Your task to perform on an android device: See recent photos Image 0: 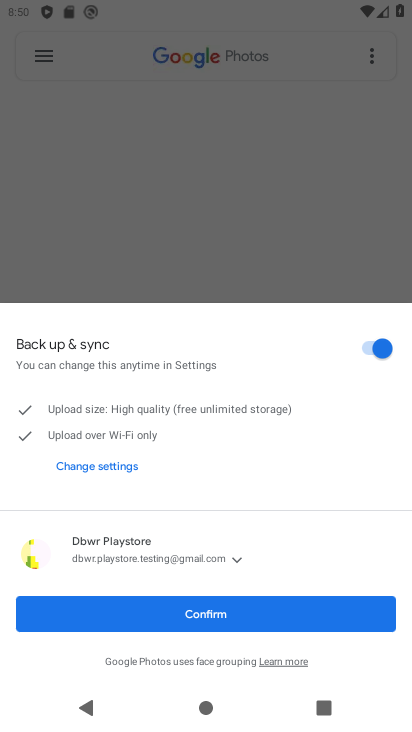
Step 0: press home button
Your task to perform on an android device: See recent photos Image 1: 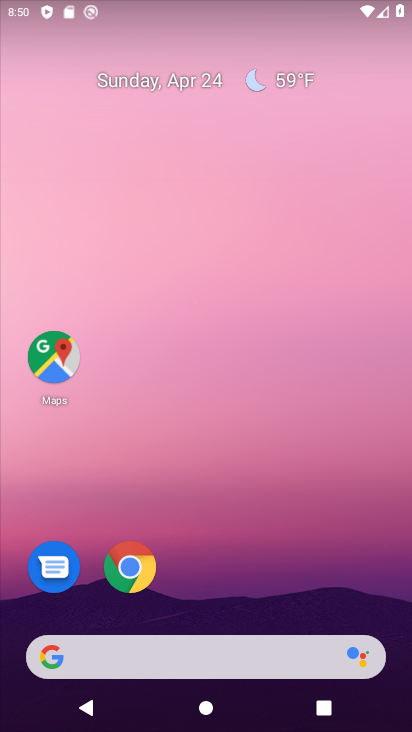
Step 1: drag from (373, 429) to (340, 218)
Your task to perform on an android device: See recent photos Image 2: 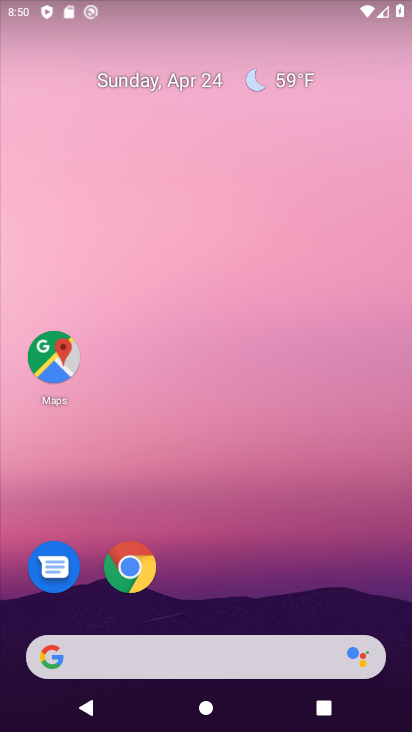
Step 2: drag from (355, 320) to (334, 90)
Your task to perform on an android device: See recent photos Image 3: 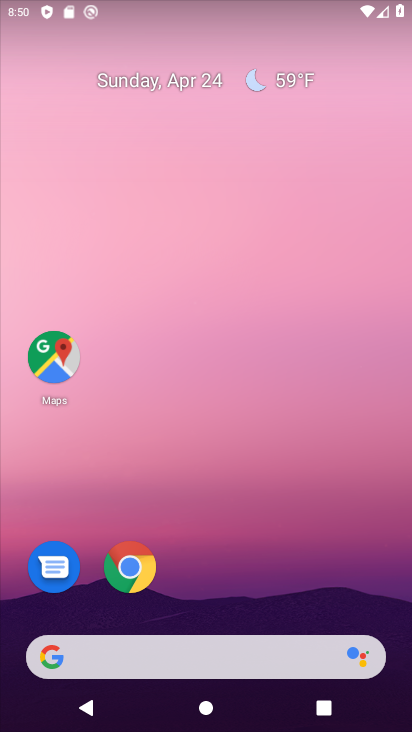
Step 3: drag from (356, 225) to (345, 120)
Your task to perform on an android device: See recent photos Image 4: 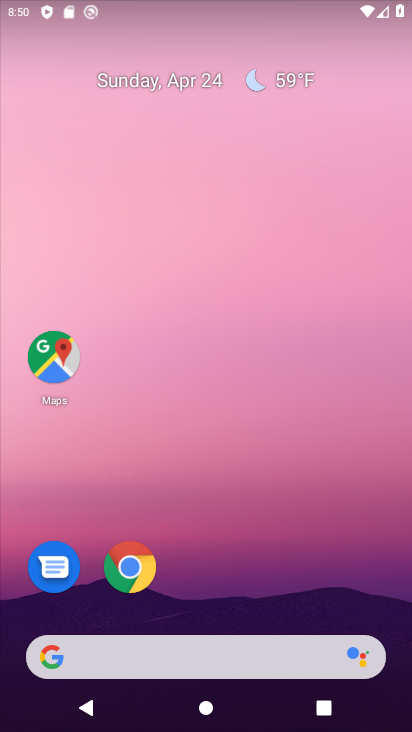
Step 4: drag from (391, 601) to (369, 140)
Your task to perform on an android device: See recent photos Image 5: 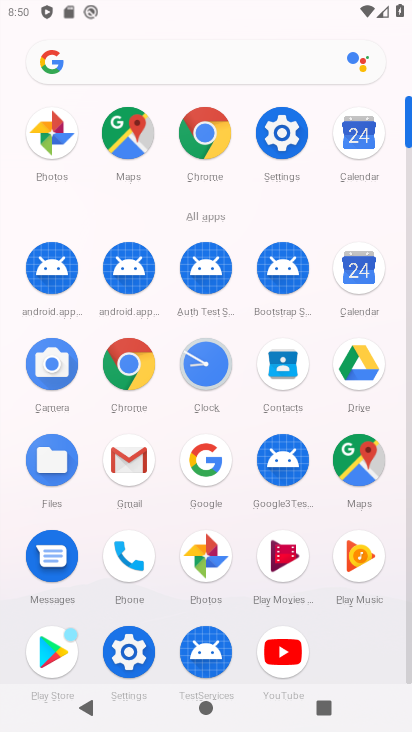
Step 5: click (54, 133)
Your task to perform on an android device: See recent photos Image 6: 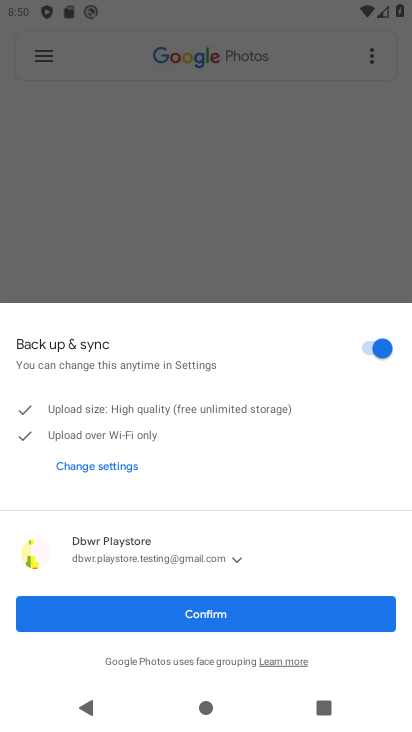
Step 6: click (208, 616)
Your task to perform on an android device: See recent photos Image 7: 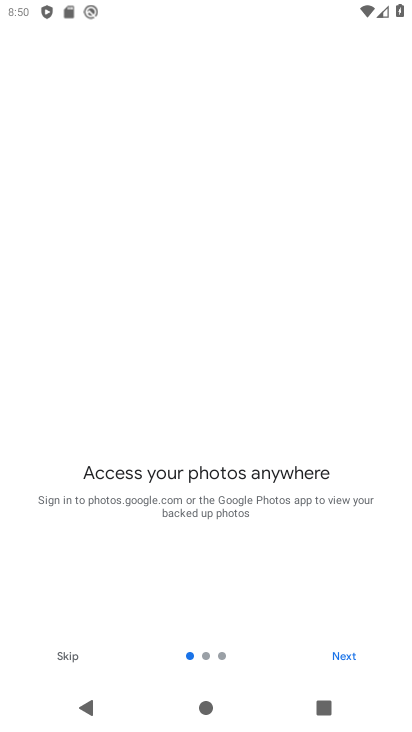
Step 7: click (340, 658)
Your task to perform on an android device: See recent photos Image 8: 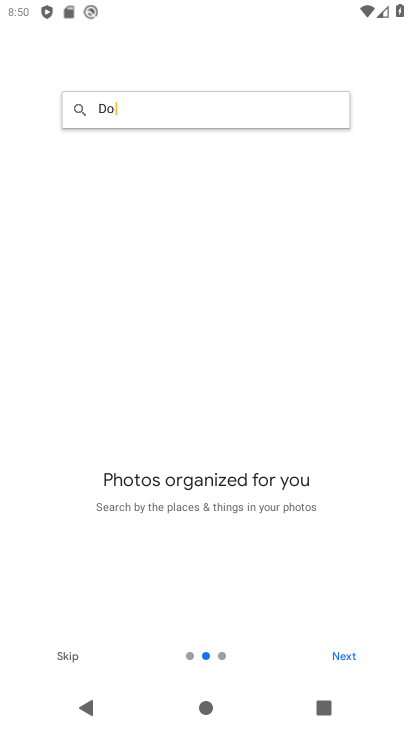
Step 8: click (340, 654)
Your task to perform on an android device: See recent photos Image 9: 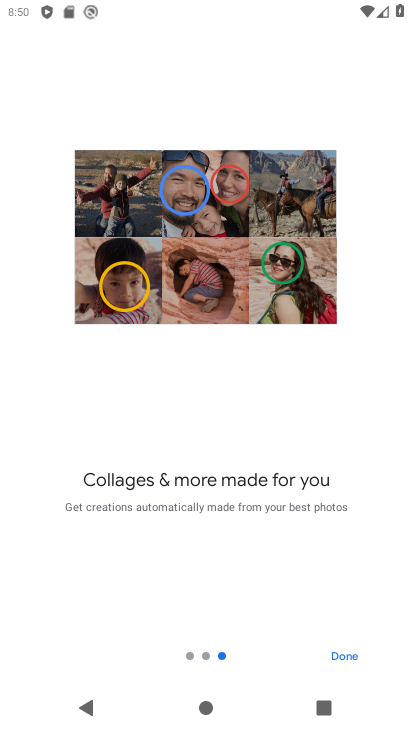
Step 9: click (340, 654)
Your task to perform on an android device: See recent photos Image 10: 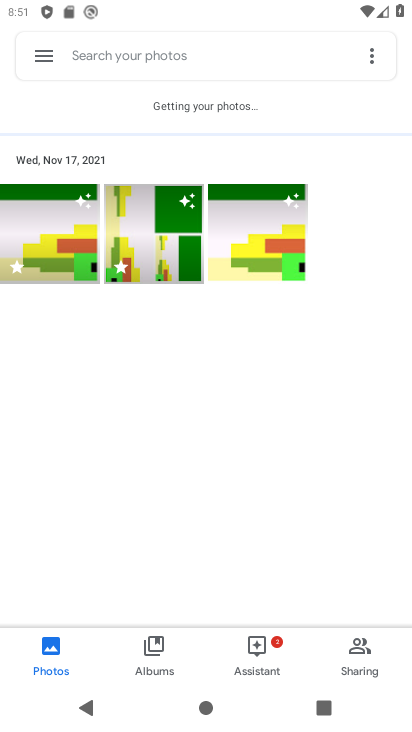
Step 10: click (44, 260)
Your task to perform on an android device: See recent photos Image 11: 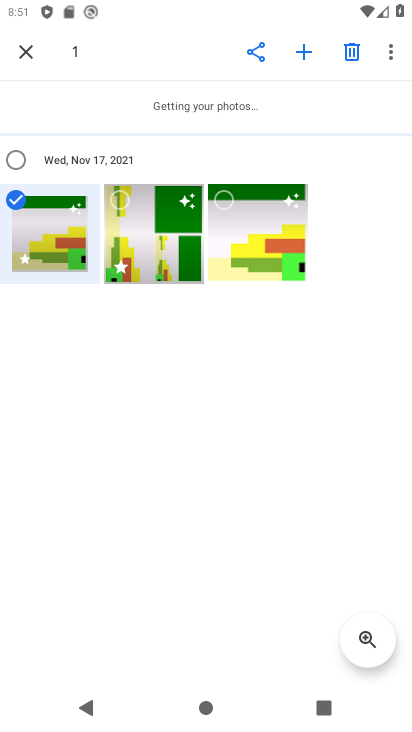
Step 11: press back button
Your task to perform on an android device: See recent photos Image 12: 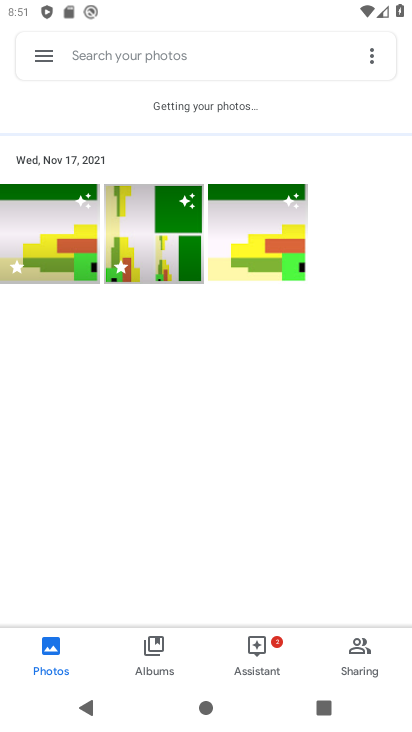
Step 12: click (40, 225)
Your task to perform on an android device: See recent photos Image 13: 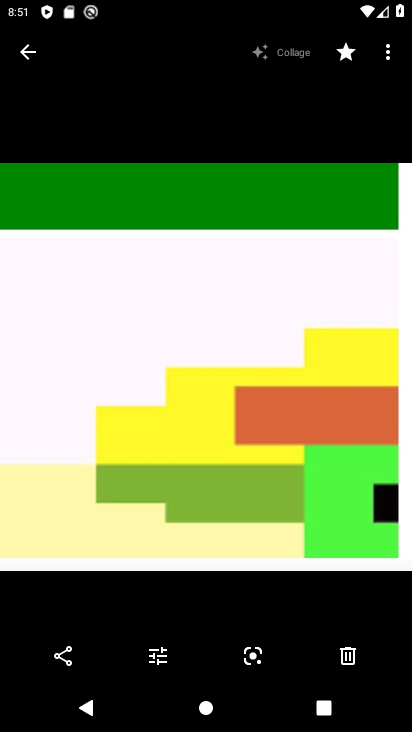
Step 13: click (25, 53)
Your task to perform on an android device: See recent photos Image 14: 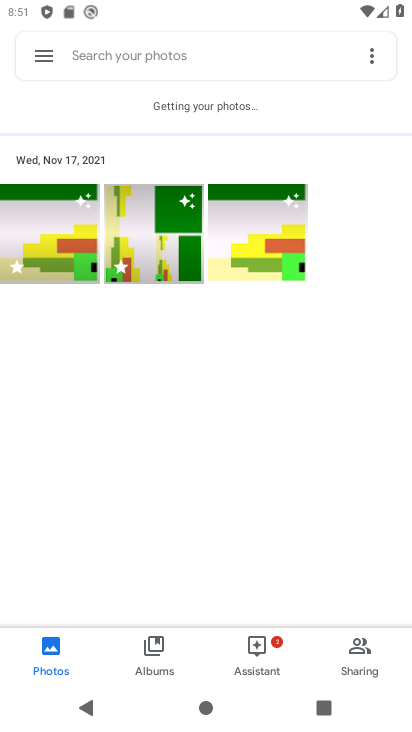
Step 14: click (134, 224)
Your task to perform on an android device: See recent photos Image 15: 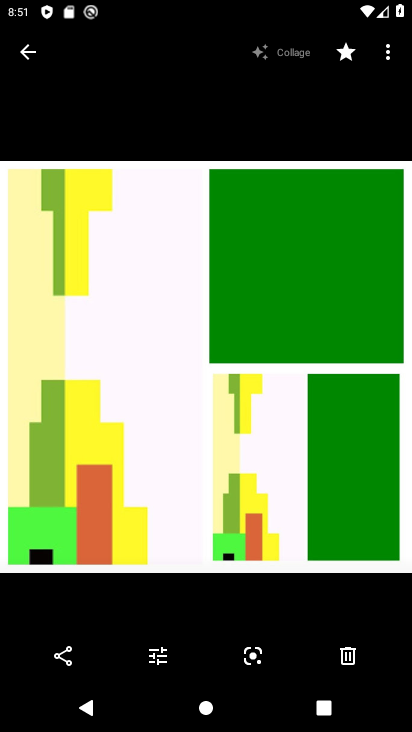
Step 15: click (13, 51)
Your task to perform on an android device: See recent photos Image 16: 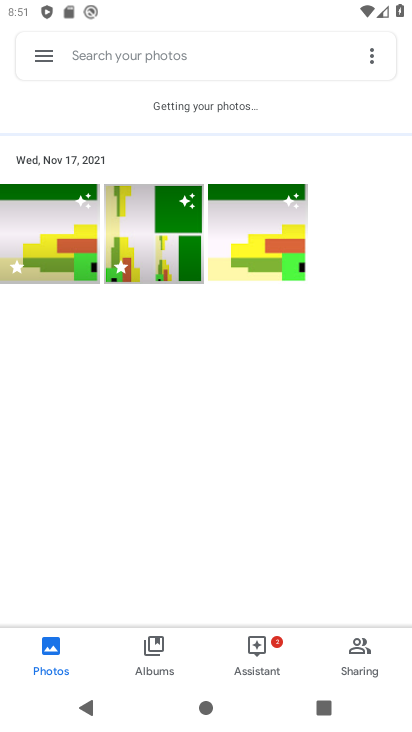
Step 16: click (185, 208)
Your task to perform on an android device: See recent photos Image 17: 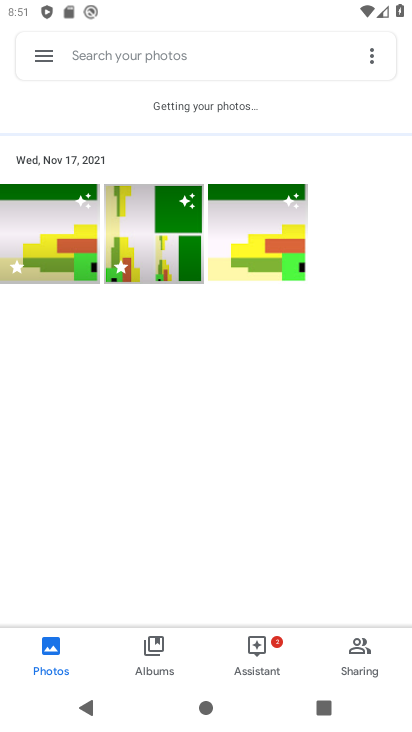
Step 17: click (229, 228)
Your task to perform on an android device: See recent photos Image 18: 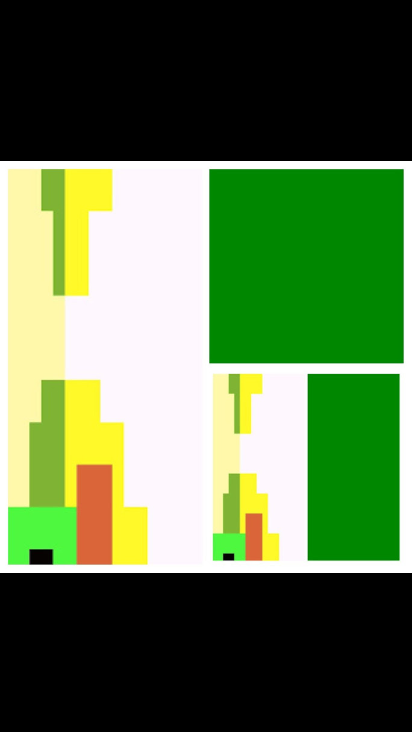
Step 18: click (29, 63)
Your task to perform on an android device: See recent photos Image 19: 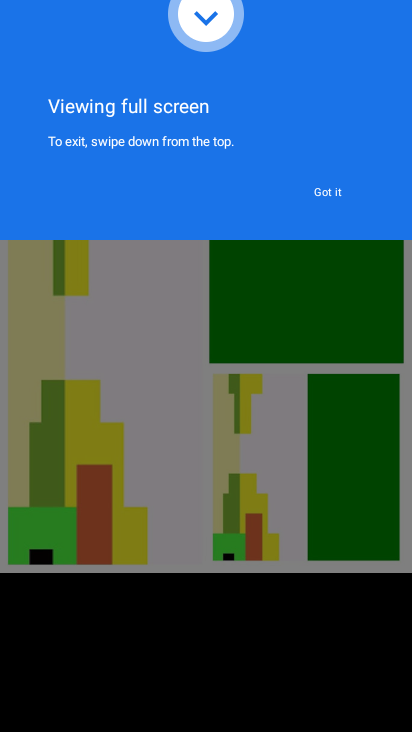
Step 19: press back button
Your task to perform on an android device: See recent photos Image 20: 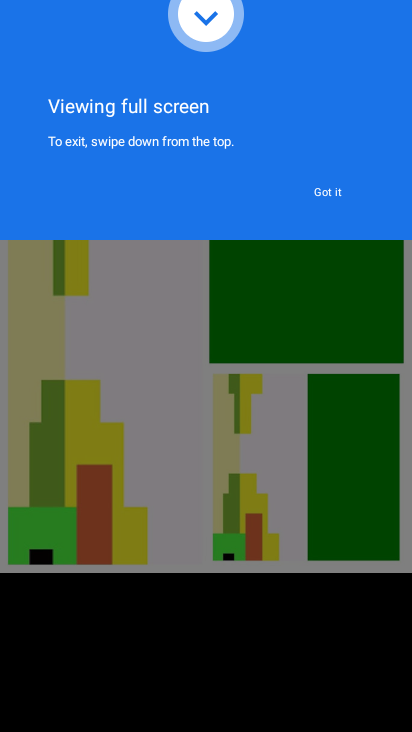
Step 20: click (211, 4)
Your task to perform on an android device: See recent photos Image 21: 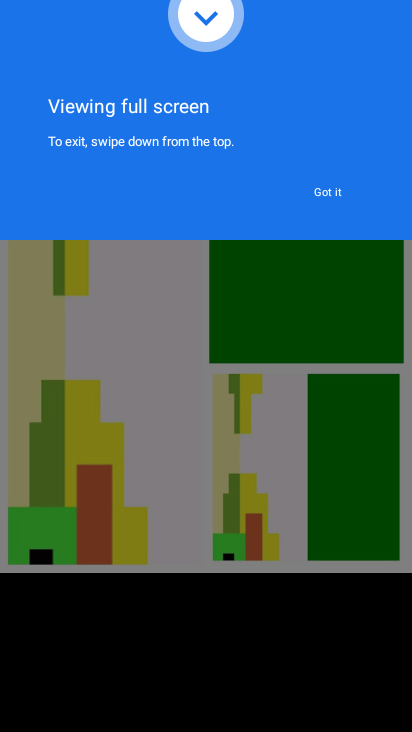
Step 21: click (327, 184)
Your task to perform on an android device: See recent photos Image 22: 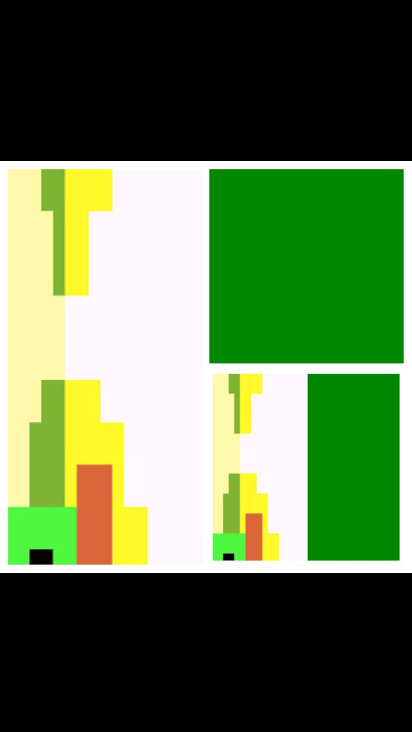
Step 22: click (13, 61)
Your task to perform on an android device: See recent photos Image 23: 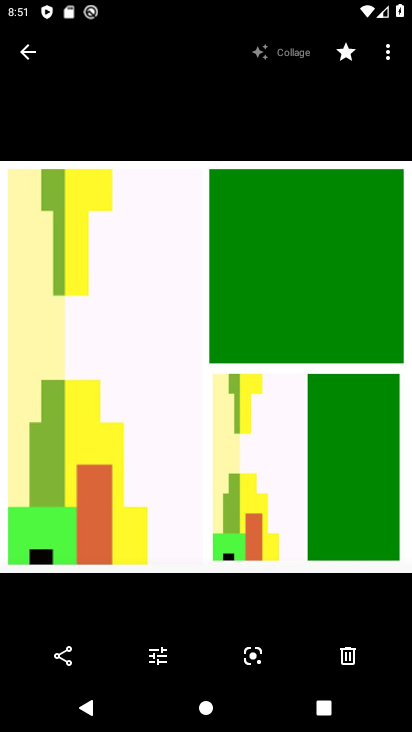
Step 23: click (40, 56)
Your task to perform on an android device: See recent photos Image 24: 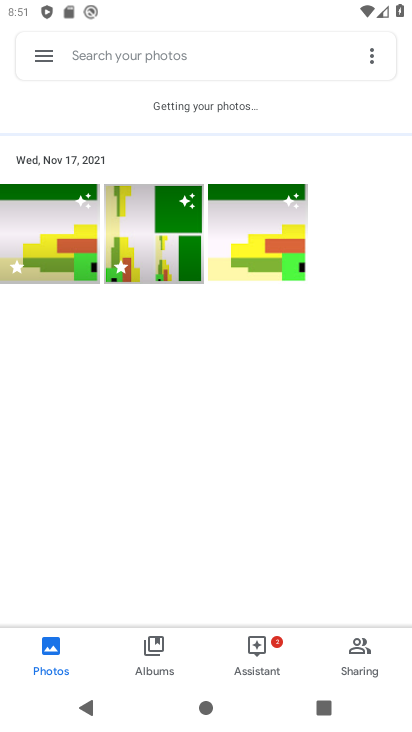
Step 24: task complete